Your task to perform on an android device: create a new album in the google photos Image 0: 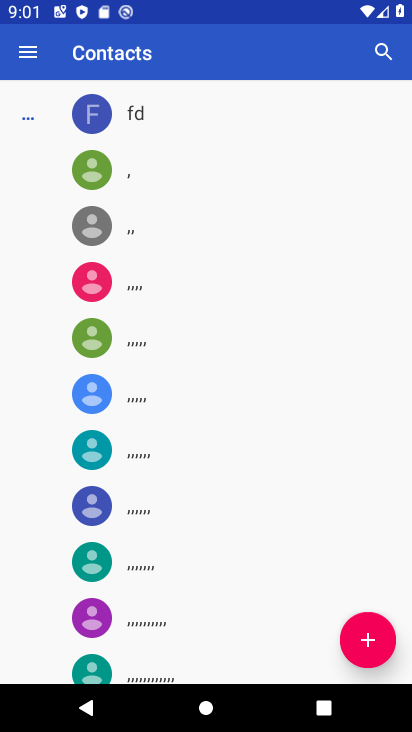
Step 0: press home button
Your task to perform on an android device: create a new album in the google photos Image 1: 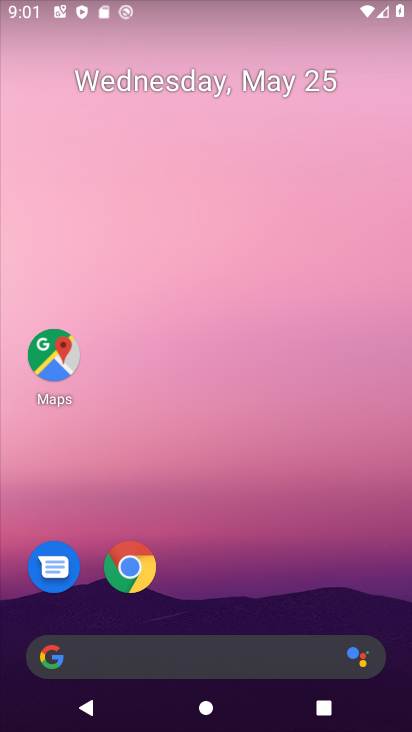
Step 1: drag from (315, 558) to (369, 11)
Your task to perform on an android device: create a new album in the google photos Image 2: 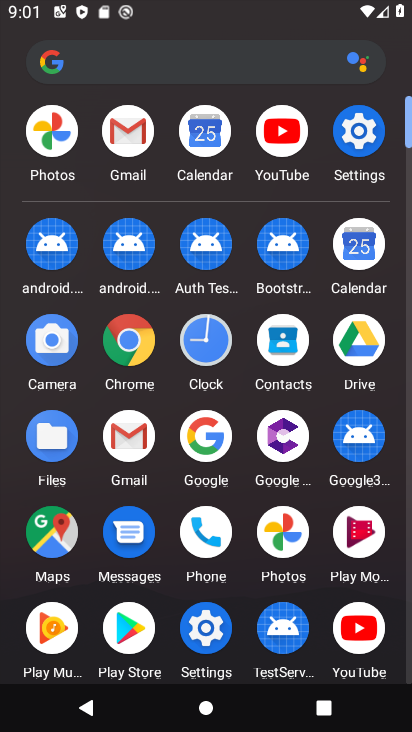
Step 2: click (53, 174)
Your task to perform on an android device: create a new album in the google photos Image 3: 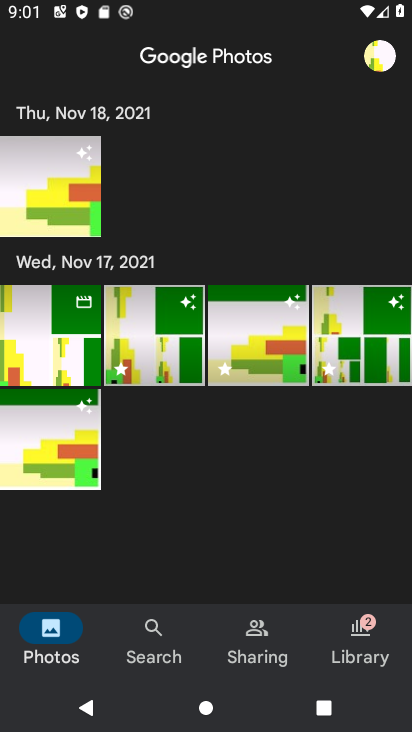
Step 3: task complete